Your task to perform on an android device: Open wifi settings Image 0: 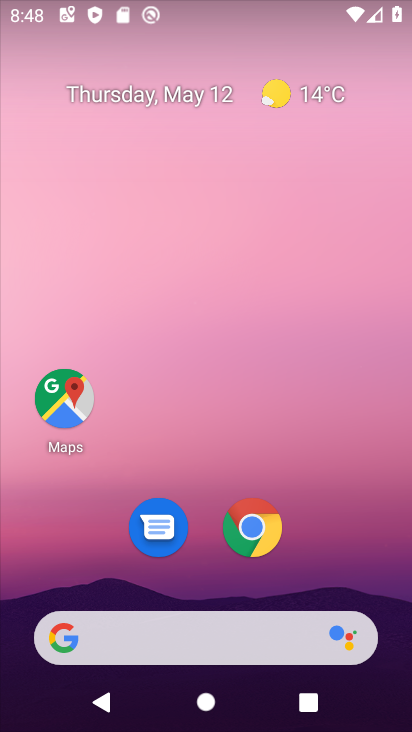
Step 0: drag from (359, 566) to (351, 78)
Your task to perform on an android device: Open wifi settings Image 1: 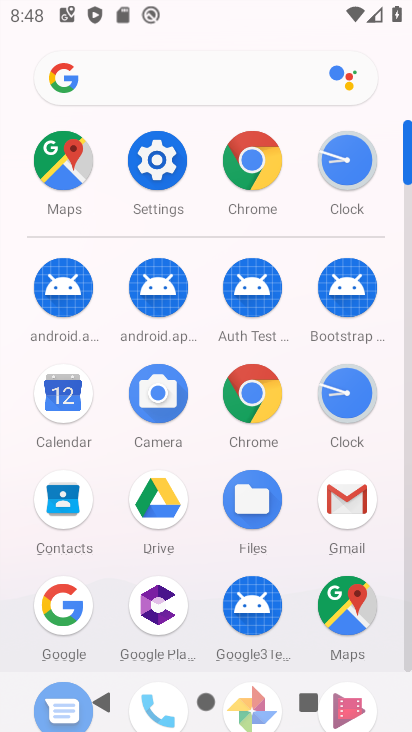
Step 1: click (144, 186)
Your task to perform on an android device: Open wifi settings Image 2: 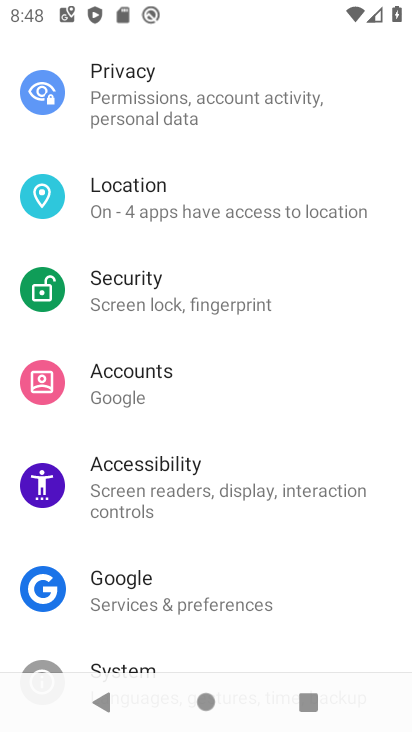
Step 2: drag from (190, 131) to (58, 549)
Your task to perform on an android device: Open wifi settings Image 3: 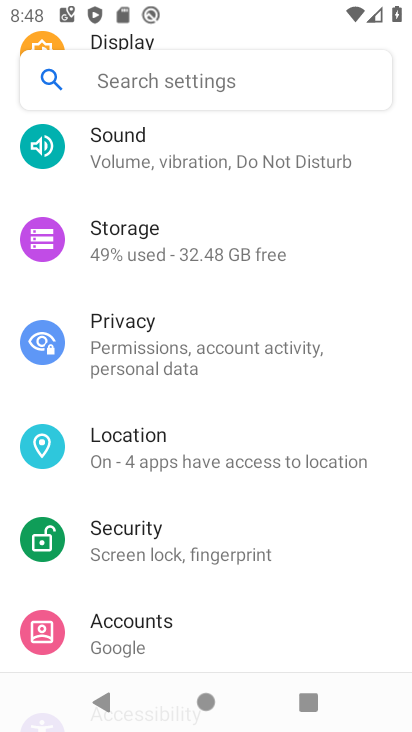
Step 3: drag from (245, 203) to (243, 535)
Your task to perform on an android device: Open wifi settings Image 4: 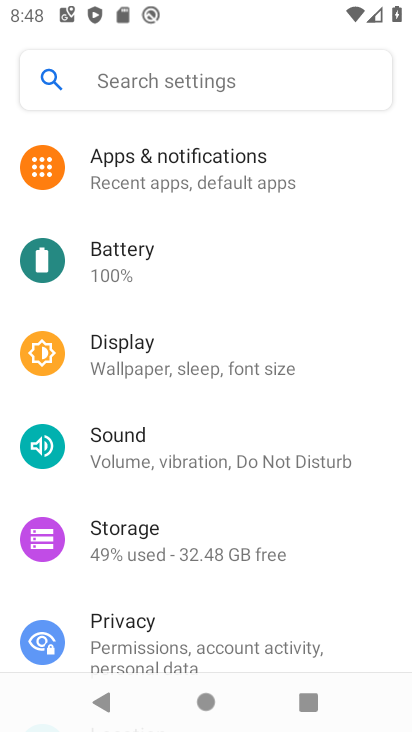
Step 4: drag from (275, 234) to (246, 460)
Your task to perform on an android device: Open wifi settings Image 5: 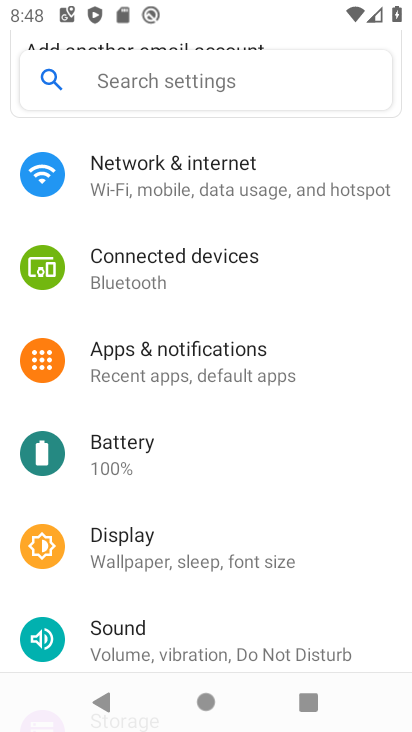
Step 5: click (273, 202)
Your task to perform on an android device: Open wifi settings Image 6: 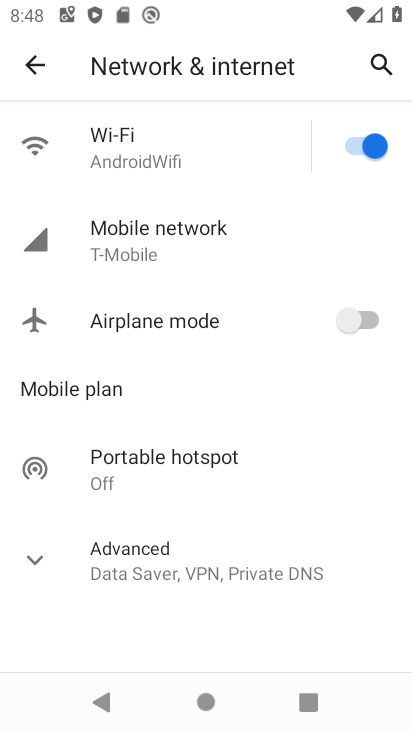
Step 6: click (212, 169)
Your task to perform on an android device: Open wifi settings Image 7: 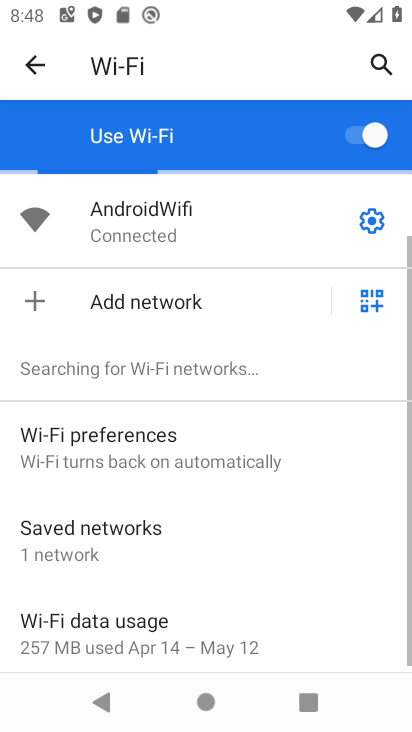
Step 7: task complete